Your task to perform on an android device: Go to battery settings Image 0: 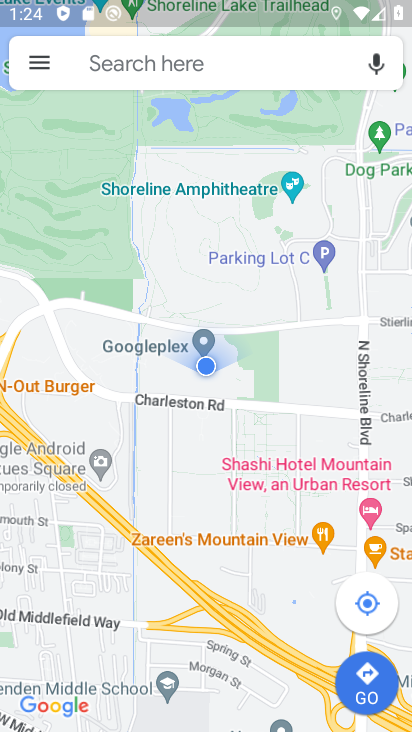
Step 0: press back button
Your task to perform on an android device: Go to battery settings Image 1: 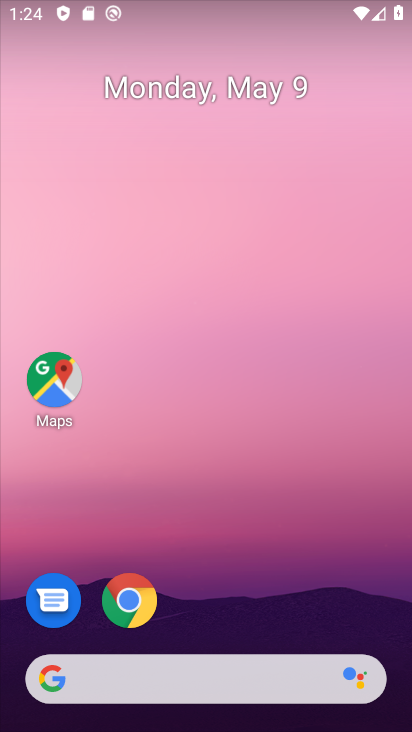
Step 1: drag from (214, 660) to (227, 59)
Your task to perform on an android device: Go to battery settings Image 2: 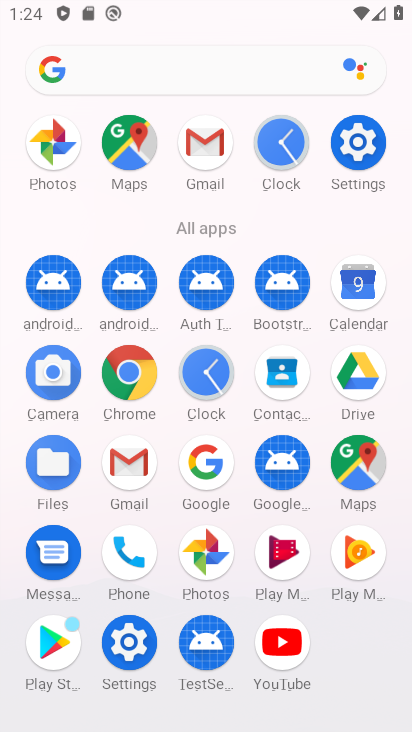
Step 2: click (127, 662)
Your task to perform on an android device: Go to battery settings Image 3: 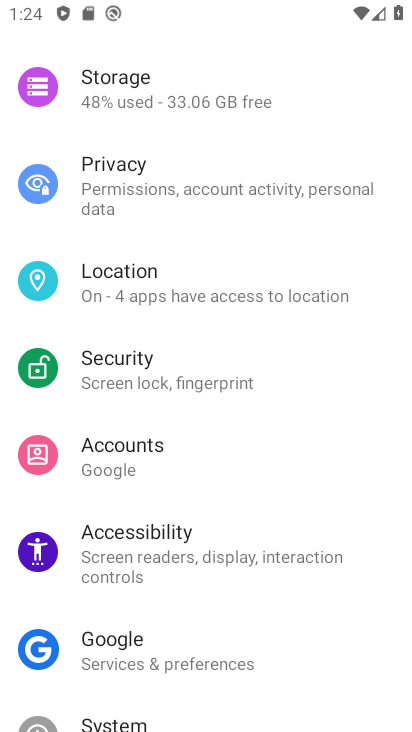
Step 3: drag from (182, 221) to (187, 571)
Your task to perform on an android device: Go to battery settings Image 4: 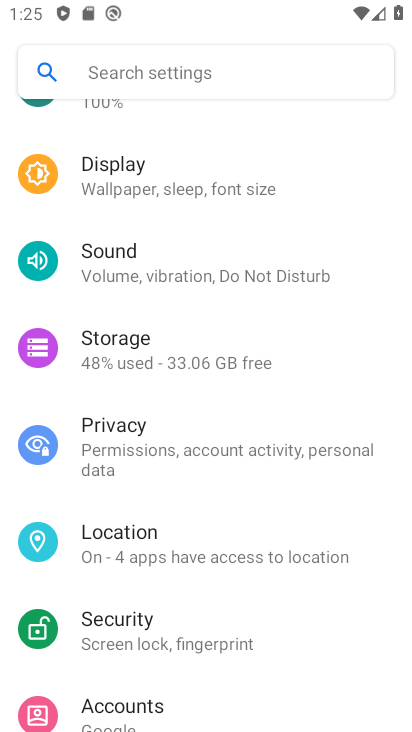
Step 4: drag from (206, 182) to (235, 516)
Your task to perform on an android device: Go to battery settings Image 5: 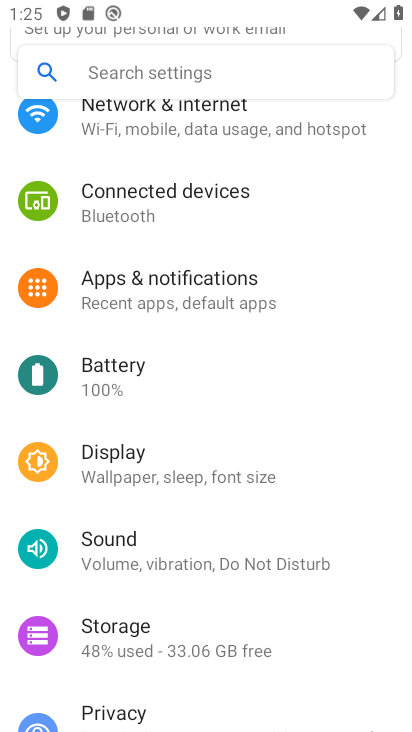
Step 5: click (140, 391)
Your task to perform on an android device: Go to battery settings Image 6: 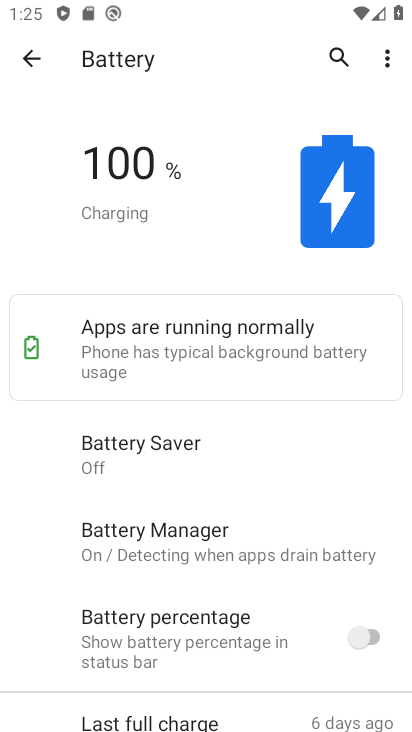
Step 6: task complete